Your task to perform on an android device: open the mobile data screen to see how much data has been used Image 0: 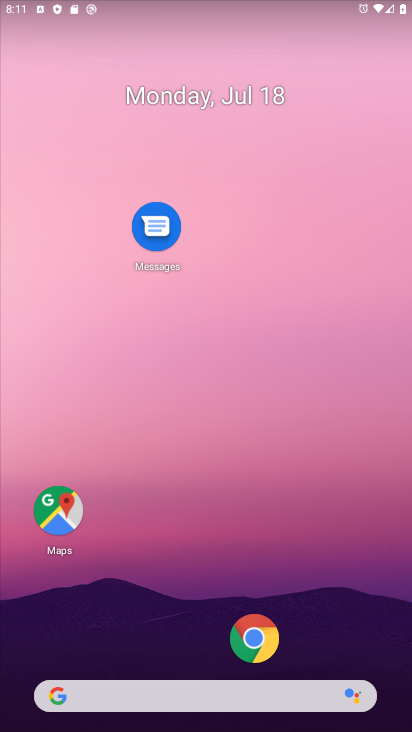
Step 0: drag from (199, 646) to (200, 68)
Your task to perform on an android device: open the mobile data screen to see how much data has been used Image 1: 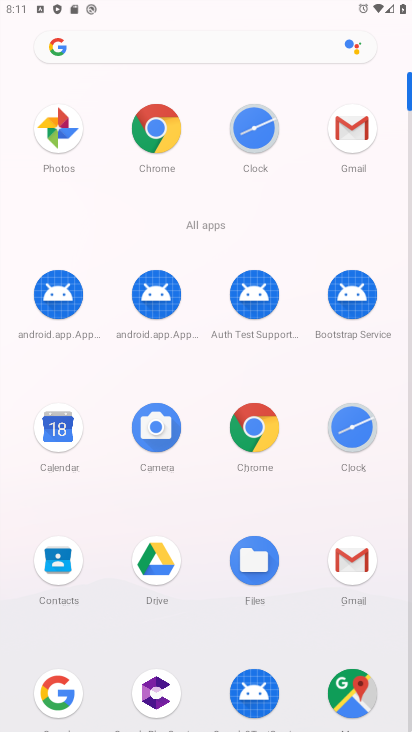
Step 1: drag from (311, 607) to (321, 79)
Your task to perform on an android device: open the mobile data screen to see how much data has been used Image 2: 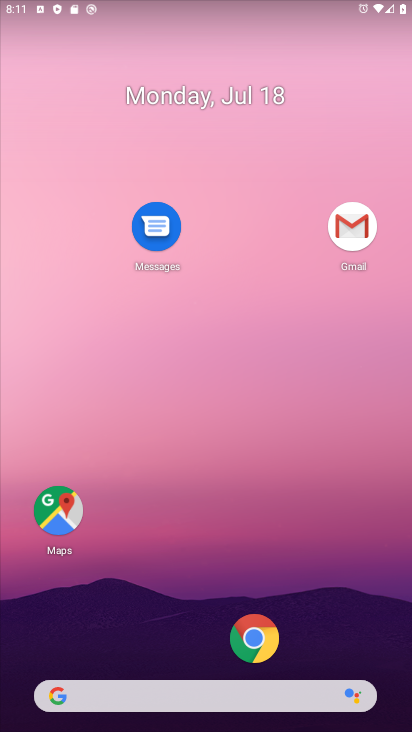
Step 2: drag from (192, 599) to (214, 26)
Your task to perform on an android device: open the mobile data screen to see how much data has been used Image 3: 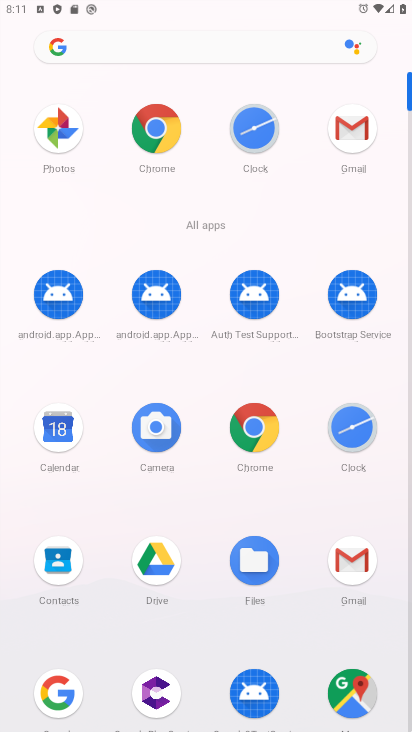
Step 3: drag from (200, 520) to (211, 0)
Your task to perform on an android device: open the mobile data screen to see how much data has been used Image 4: 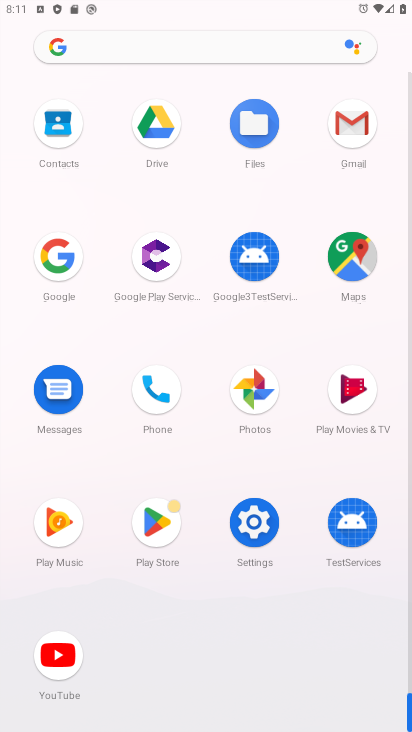
Step 4: click (245, 531)
Your task to perform on an android device: open the mobile data screen to see how much data has been used Image 5: 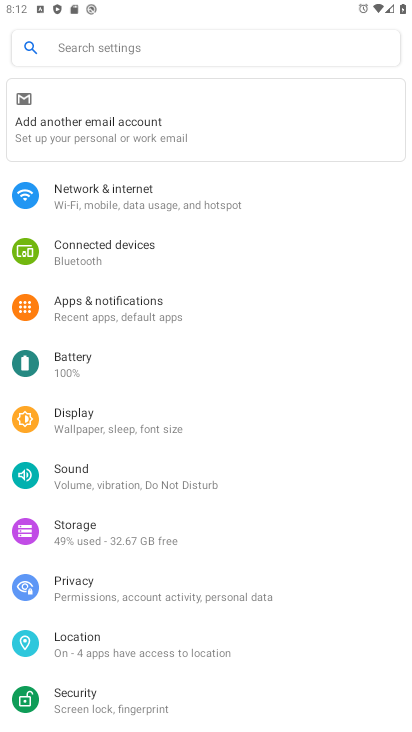
Step 5: click (95, 195)
Your task to perform on an android device: open the mobile data screen to see how much data has been used Image 6: 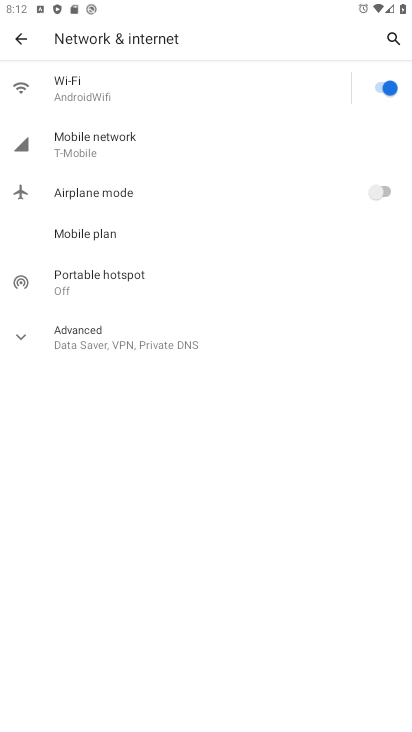
Step 6: click (90, 143)
Your task to perform on an android device: open the mobile data screen to see how much data has been used Image 7: 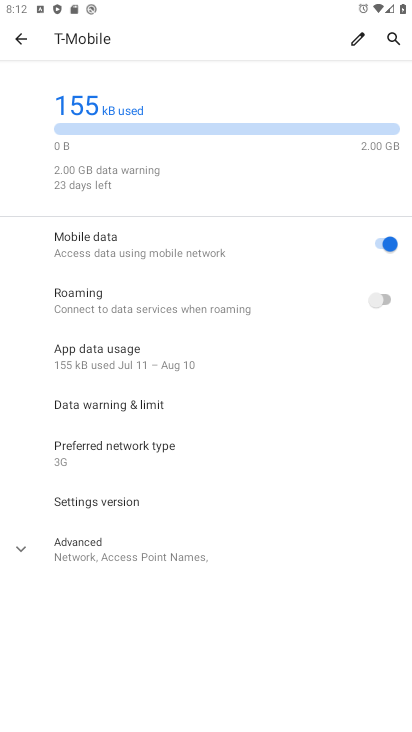
Step 7: click (127, 358)
Your task to perform on an android device: open the mobile data screen to see how much data has been used Image 8: 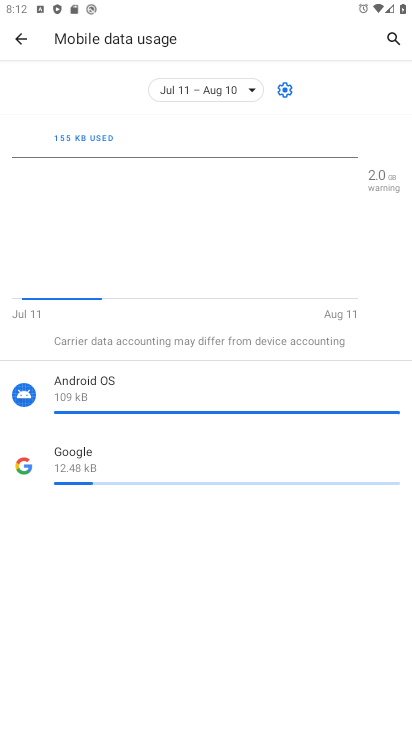
Step 8: task complete